Your task to perform on an android device: What's the weather going to be tomorrow? Image 0: 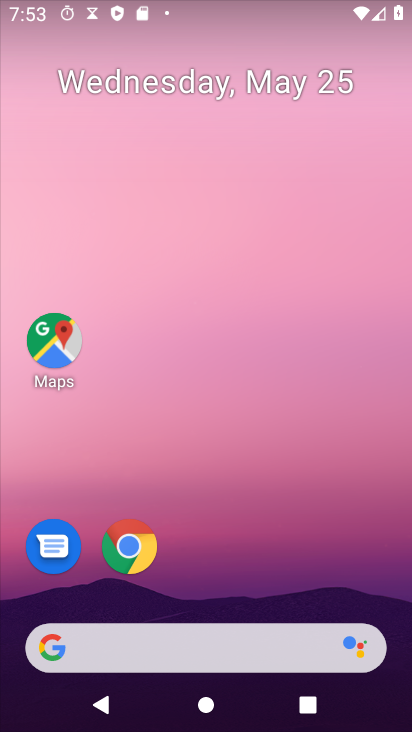
Step 0: click (145, 657)
Your task to perform on an android device: What's the weather going to be tomorrow? Image 1: 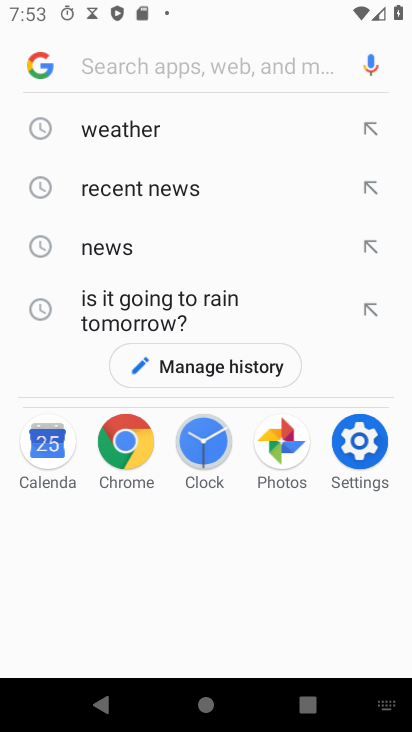
Step 1: click (129, 136)
Your task to perform on an android device: What's the weather going to be tomorrow? Image 2: 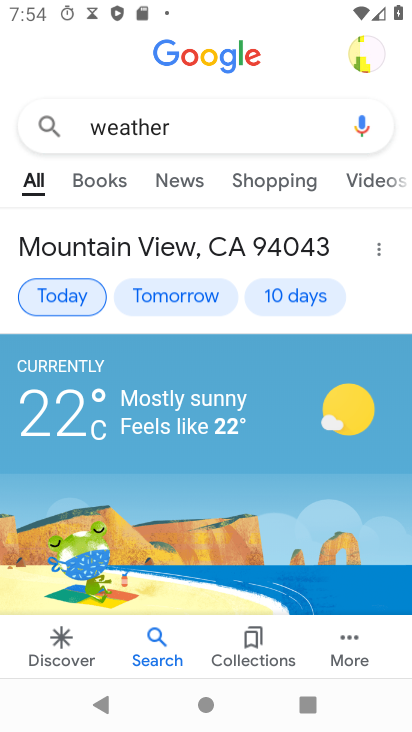
Step 2: click (184, 290)
Your task to perform on an android device: What's the weather going to be tomorrow? Image 3: 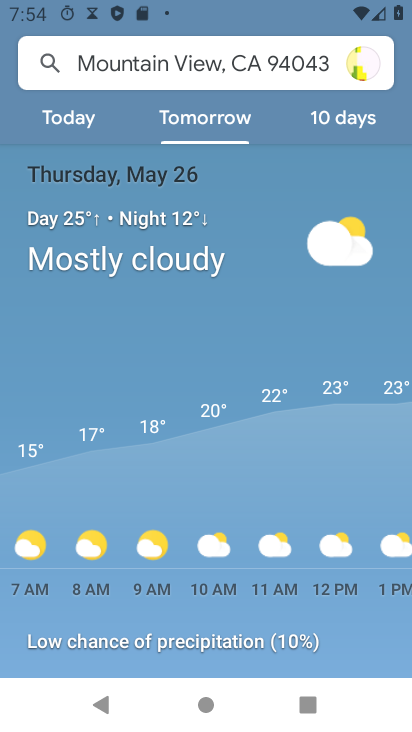
Step 3: task complete